Your task to perform on an android device: toggle javascript in the chrome app Image 0: 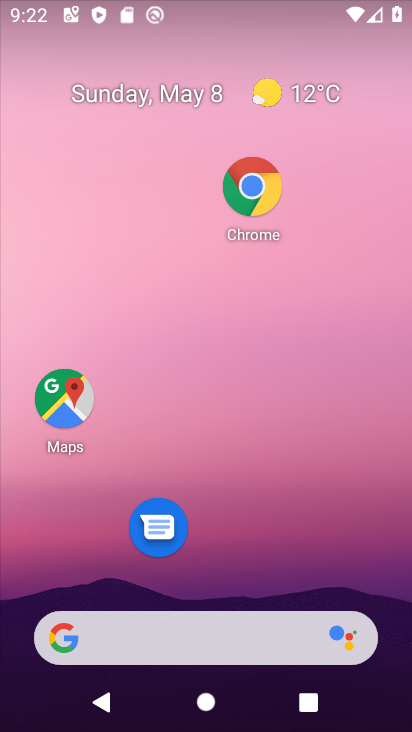
Step 0: drag from (309, 521) to (322, 352)
Your task to perform on an android device: toggle javascript in the chrome app Image 1: 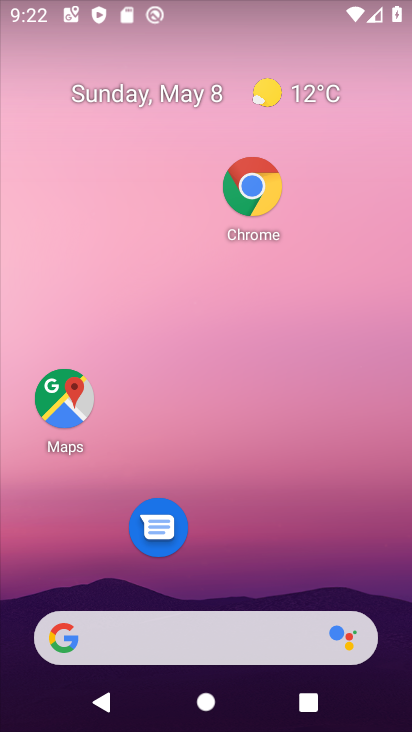
Step 1: drag from (324, 417) to (303, 250)
Your task to perform on an android device: toggle javascript in the chrome app Image 2: 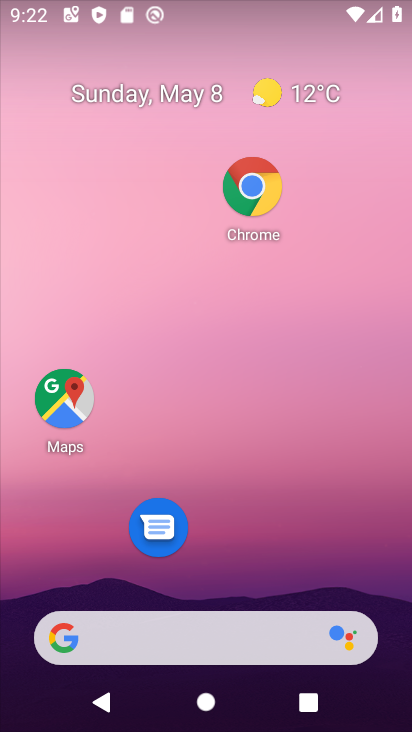
Step 2: drag from (280, 539) to (272, 295)
Your task to perform on an android device: toggle javascript in the chrome app Image 3: 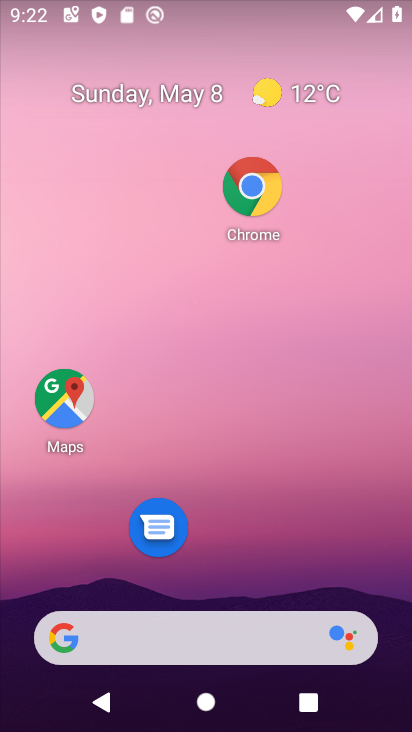
Step 3: drag from (272, 372) to (271, 270)
Your task to perform on an android device: toggle javascript in the chrome app Image 4: 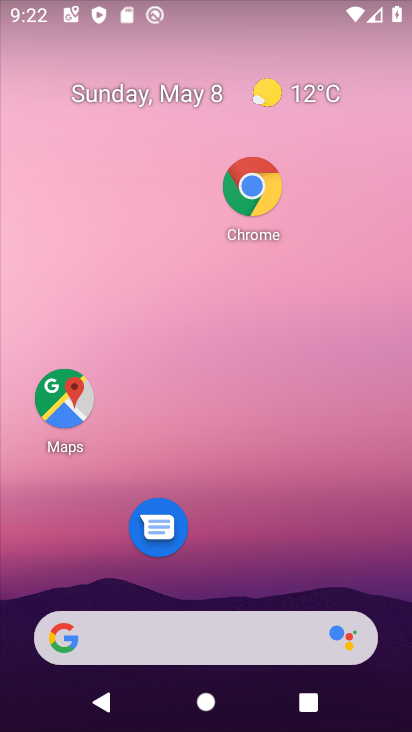
Step 4: drag from (237, 471) to (293, 213)
Your task to perform on an android device: toggle javascript in the chrome app Image 5: 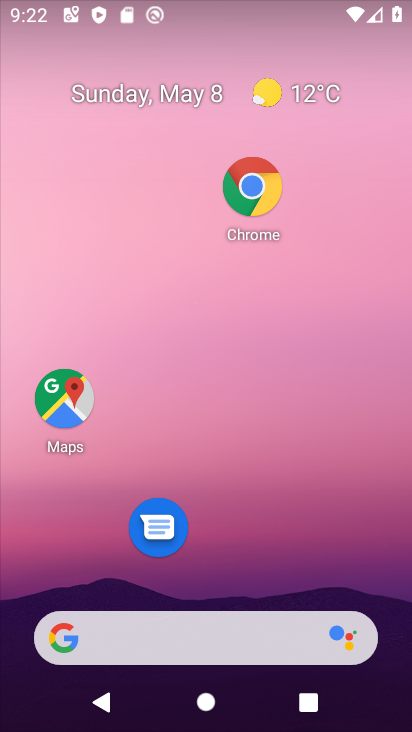
Step 5: drag from (276, 557) to (324, 233)
Your task to perform on an android device: toggle javascript in the chrome app Image 6: 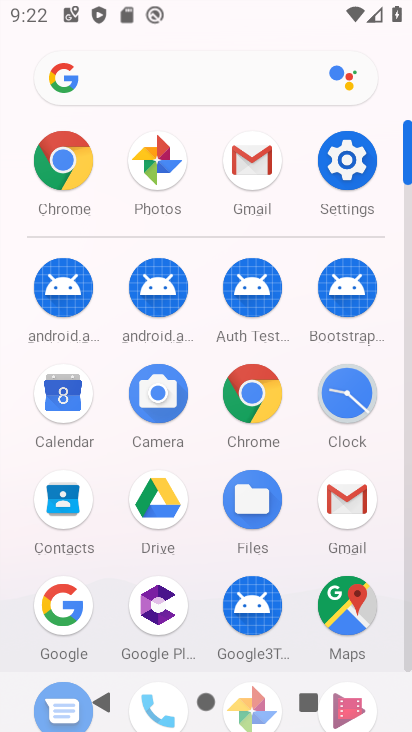
Step 6: click (246, 380)
Your task to perform on an android device: toggle javascript in the chrome app Image 7: 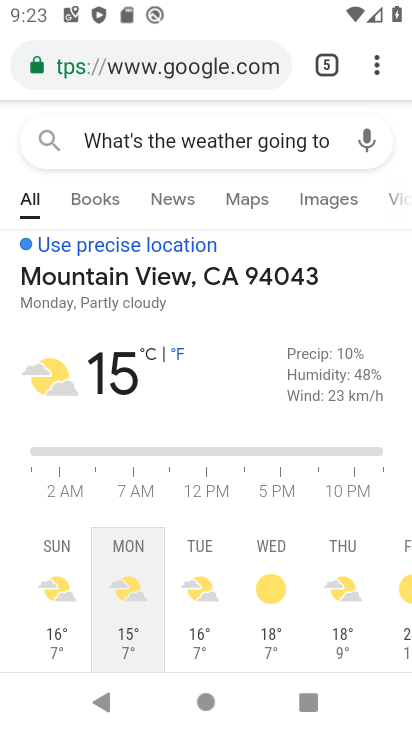
Step 7: click (366, 68)
Your task to perform on an android device: toggle javascript in the chrome app Image 8: 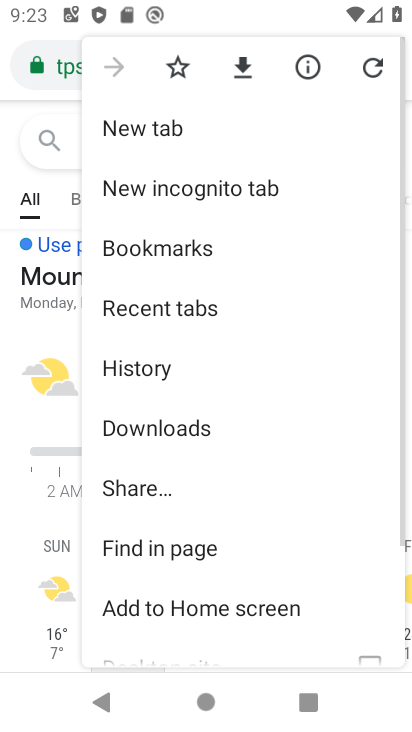
Step 8: drag from (250, 569) to (274, 211)
Your task to perform on an android device: toggle javascript in the chrome app Image 9: 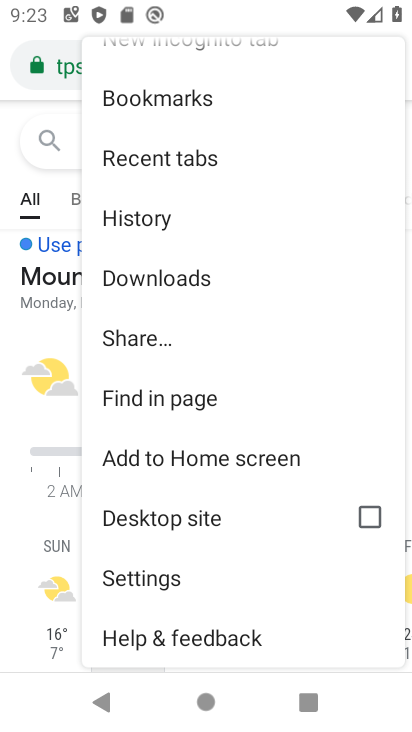
Step 9: click (155, 572)
Your task to perform on an android device: toggle javascript in the chrome app Image 10: 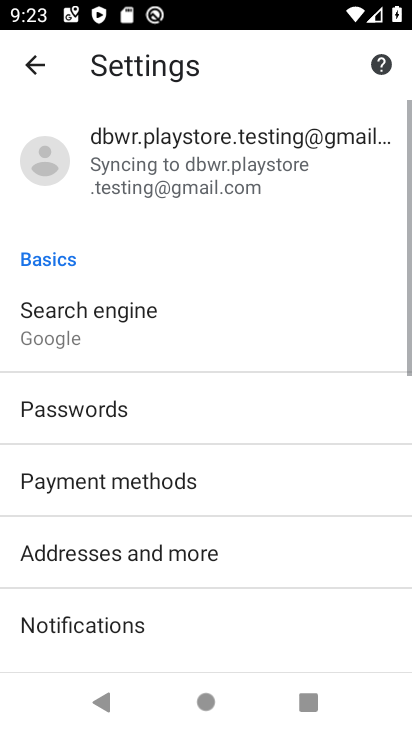
Step 10: drag from (192, 603) to (238, 291)
Your task to perform on an android device: toggle javascript in the chrome app Image 11: 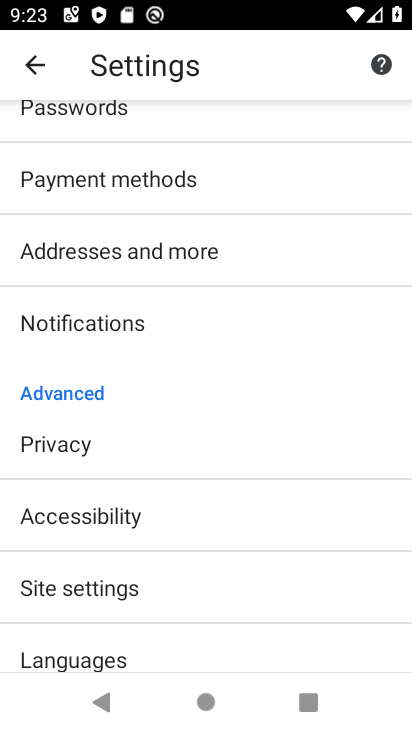
Step 11: click (186, 595)
Your task to perform on an android device: toggle javascript in the chrome app Image 12: 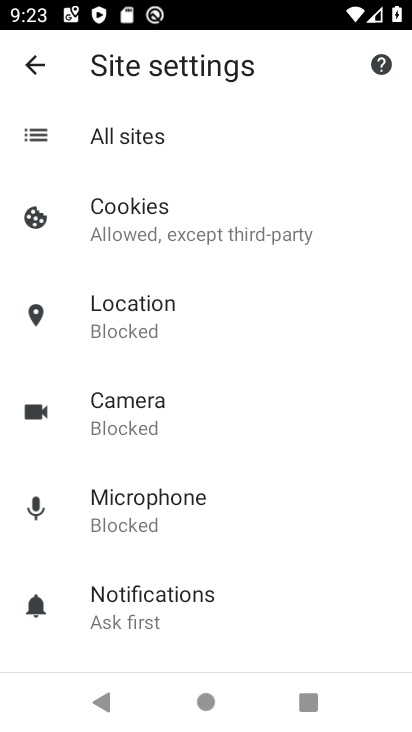
Step 12: drag from (184, 599) to (189, 221)
Your task to perform on an android device: toggle javascript in the chrome app Image 13: 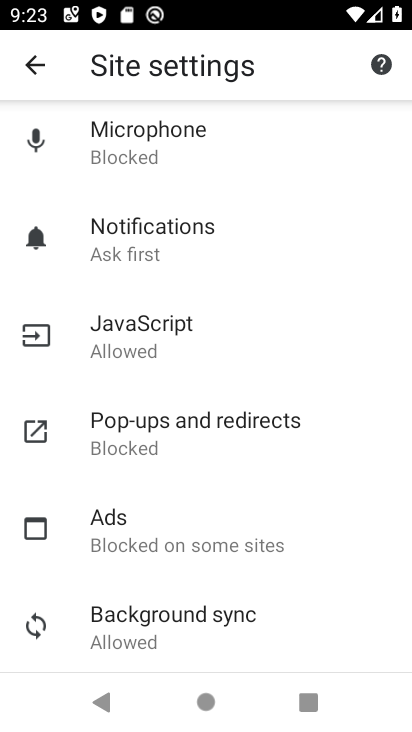
Step 13: click (112, 351)
Your task to perform on an android device: toggle javascript in the chrome app Image 14: 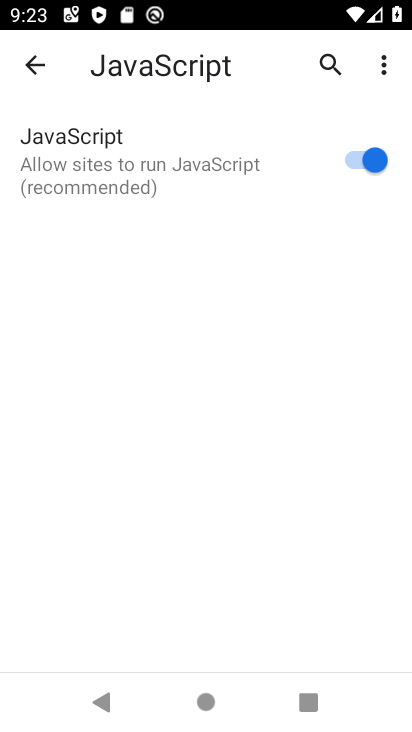
Step 14: click (349, 160)
Your task to perform on an android device: toggle javascript in the chrome app Image 15: 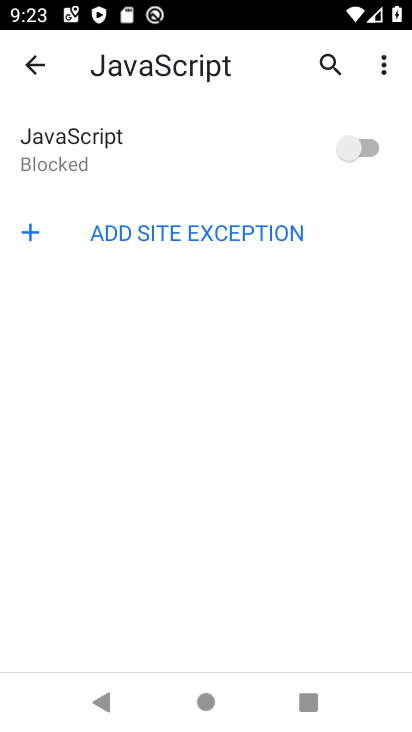
Step 15: task complete